Your task to perform on an android device: Open calendar and show me the fourth week of next month Image 0: 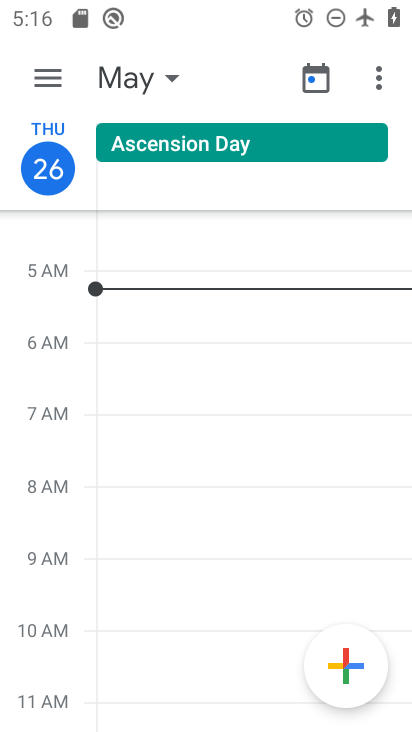
Step 0: press home button
Your task to perform on an android device: Open calendar and show me the fourth week of next month Image 1: 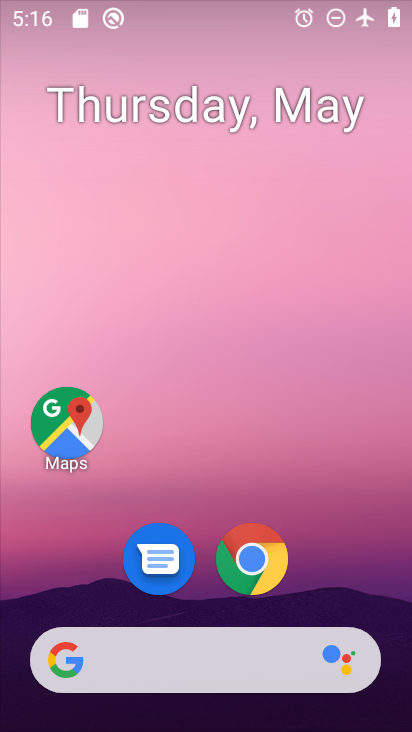
Step 1: drag from (357, 528) to (226, 36)
Your task to perform on an android device: Open calendar and show me the fourth week of next month Image 2: 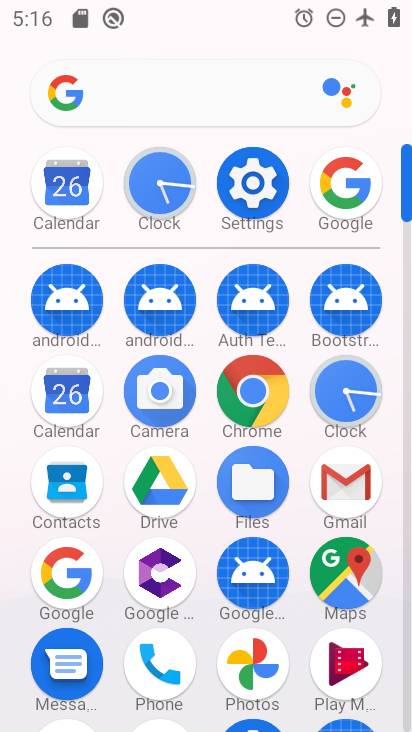
Step 2: click (71, 386)
Your task to perform on an android device: Open calendar and show me the fourth week of next month Image 3: 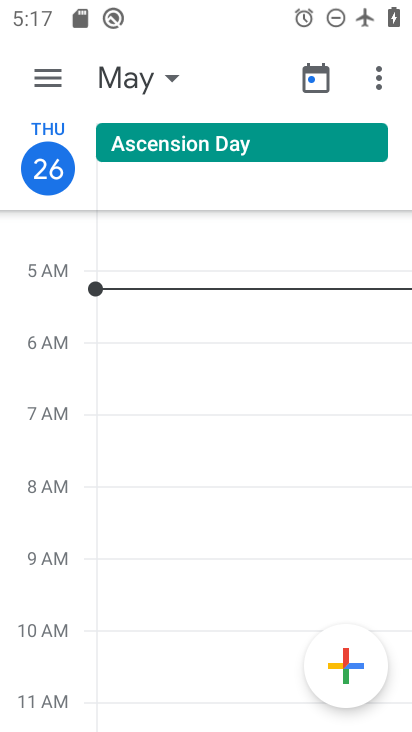
Step 3: click (161, 75)
Your task to perform on an android device: Open calendar and show me the fourth week of next month Image 4: 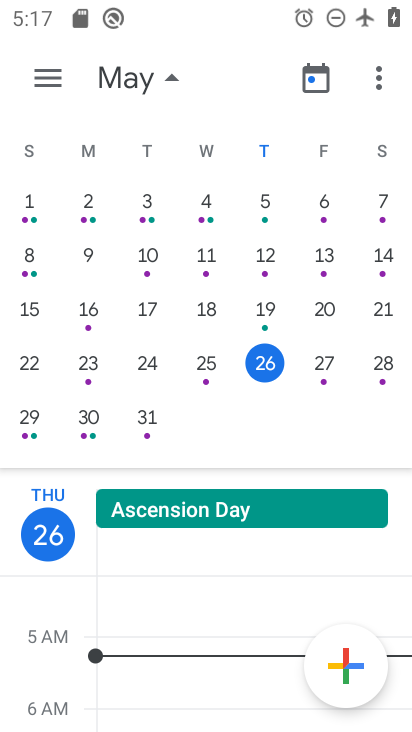
Step 4: drag from (365, 287) to (2, 413)
Your task to perform on an android device: Open calendar and show me the fourth week of next month Image 5: 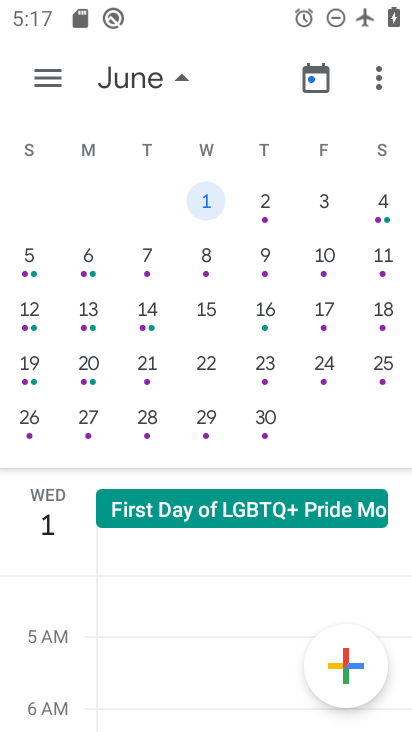
Step 5: click (36, 367)
Your task to perform on an android device: Open calendar and show me the fourth week of next month Image 6: 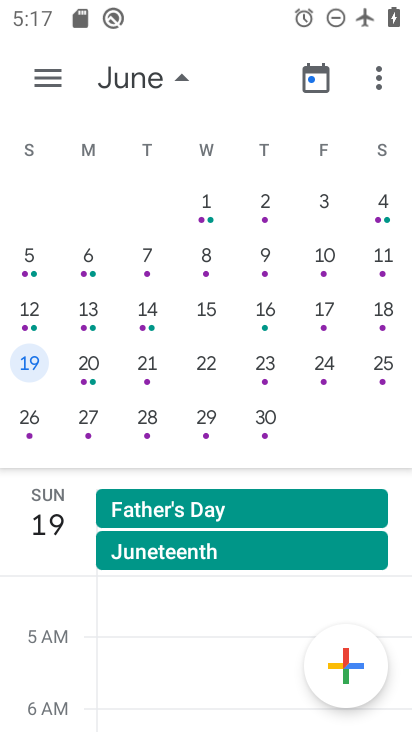
Step 6: task complete